Your task to perform on an android device: Open wifi settings Image 0: 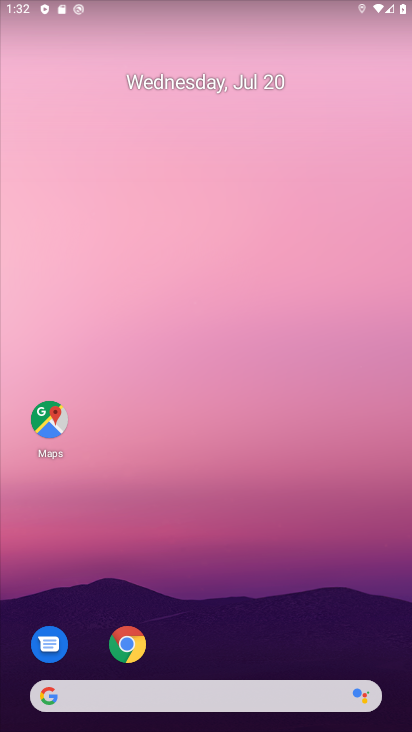
Step 0: drag from (298, 657) to (277, 131)
Your task to perform on an android device: Open wifi settings Image 1: 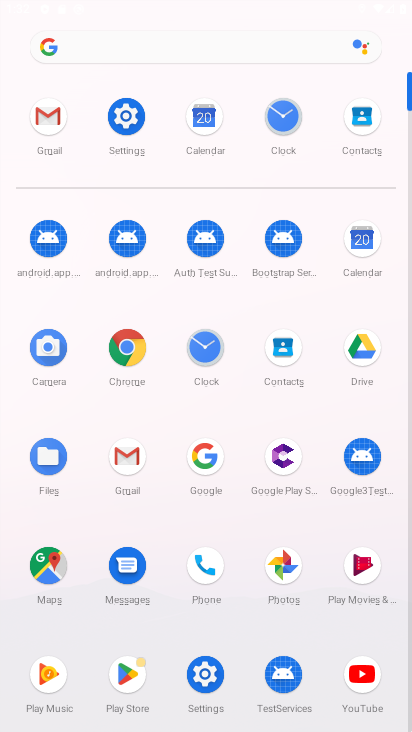
Step 1: click (128, 116)
Your task to perform on an android device: Open wifi settings Image 2: 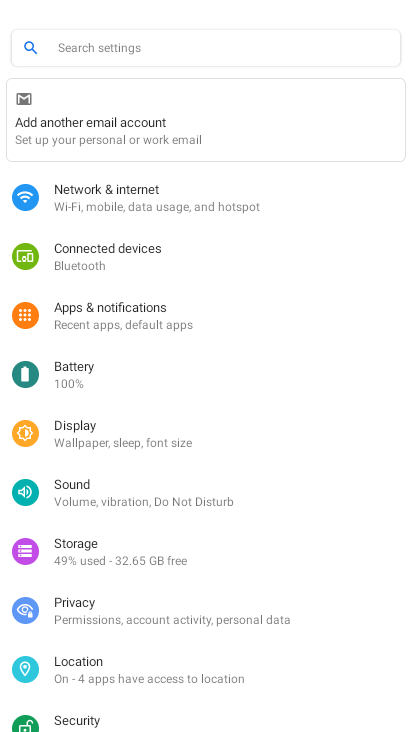
Step 2: click (158, 204)
Your task to perform on an android device: Open wifi settings Image 3: 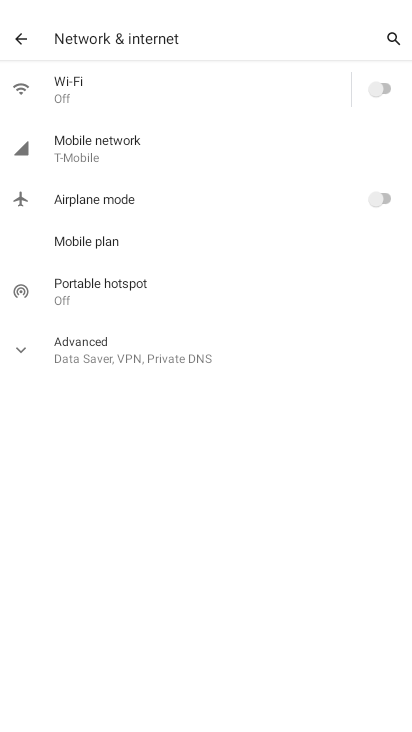
Step 3: click (133, 71)
Your task to perform on an android device: Open wifi settings Image 4: 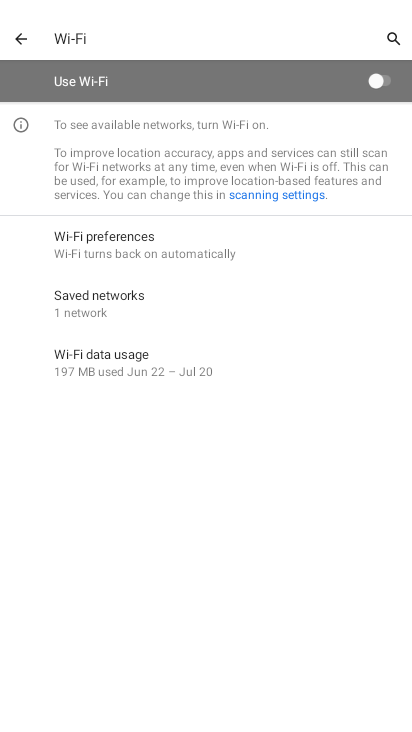
Step 4: task complete